Your task to perform on an android device: add a contact in the contacts app Image 0: 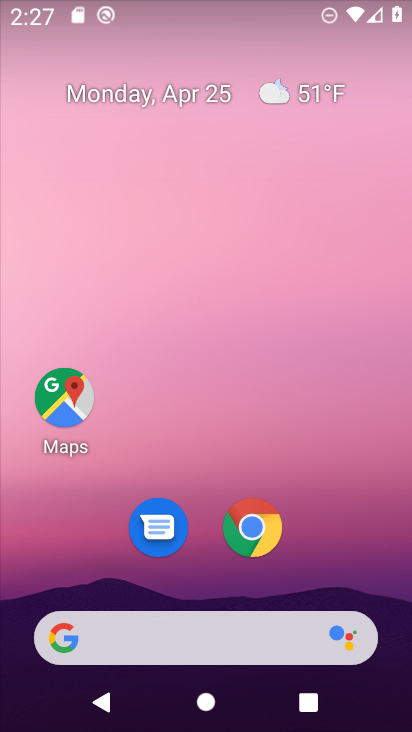
Step 0: drag from (272, 129) to (251, 30)
Your task to perform on an android device: add a contact in the contacts app Image 1: 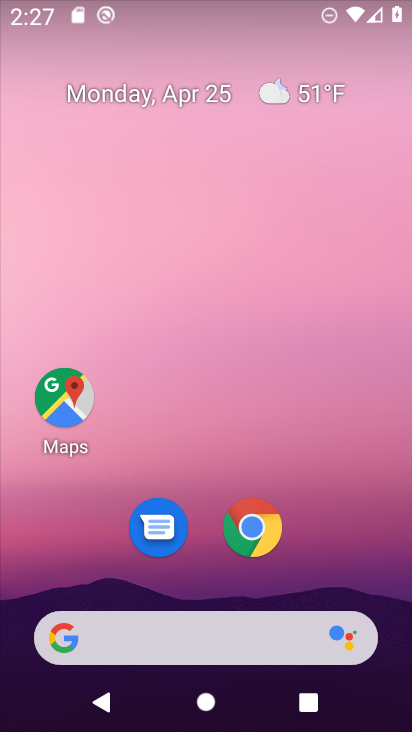
Step 1: drag from (288, 545) to (213, 45)
Your task to perform on an android device: add a contact in the contacts app Image 2: 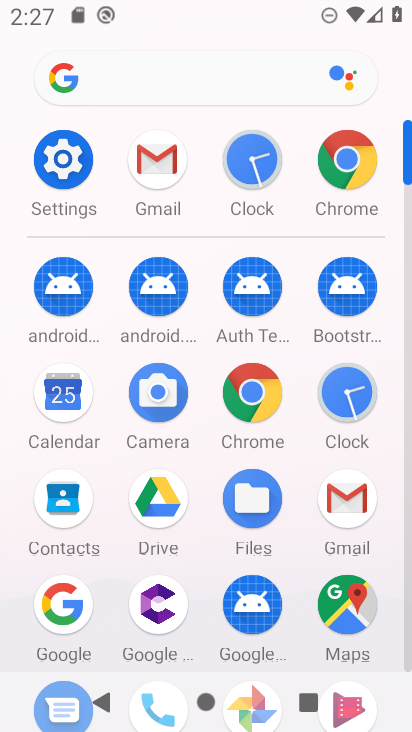
Step 2: drag from (6, 613) to (2, 278)
Your task to perform on an android device: add a contact in the contacts app Image 3: 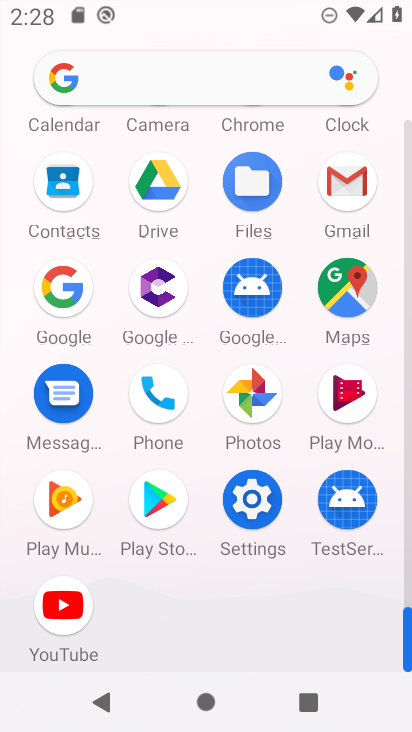
Step 3: click (63, 179)
Your task to perform on an android device: add a contact in the contacts app Image 4: 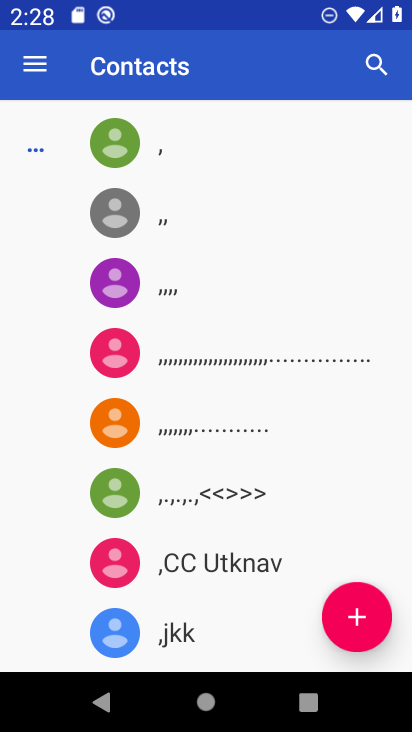
Step 4: click (347, 616)
Your task to perform on an android device: add a contact in the contacts app Image 5: 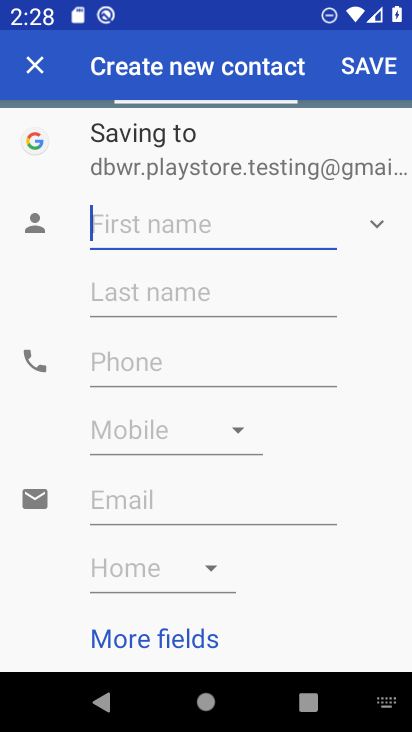
Step 5: type "Mjhhg"
Your task to perform on an android device: add a contact in the contacts app Image 6: 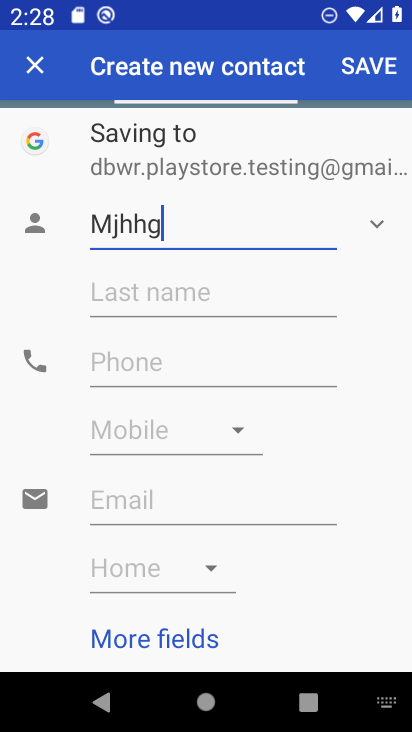
Step 6: type ""
Your task to perform on an android device: add a contact in the contacts app Image 7: 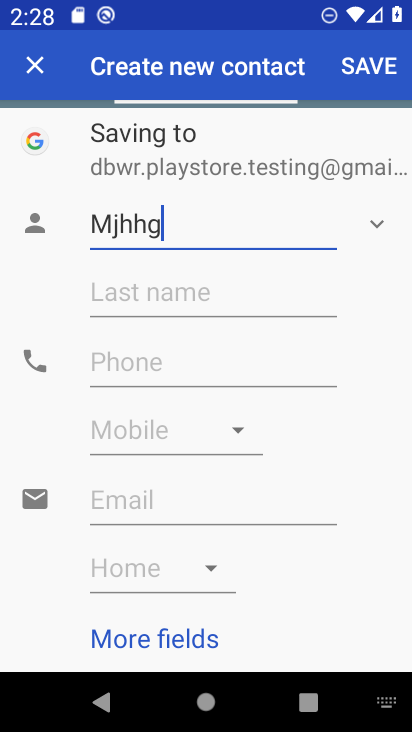
Step 7: click (209, 360)
Your task to perform on an android device: add a contact in the contacts app Image 8: 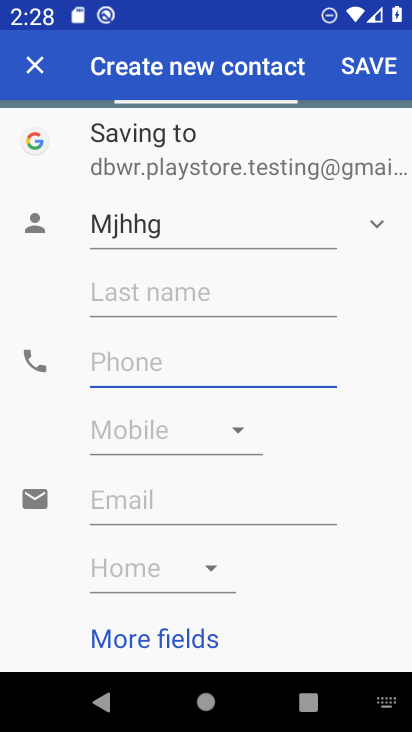
Step 8: type "3567898765"
Your task to perform on an android device: add a contact in the contacts app Image 9: 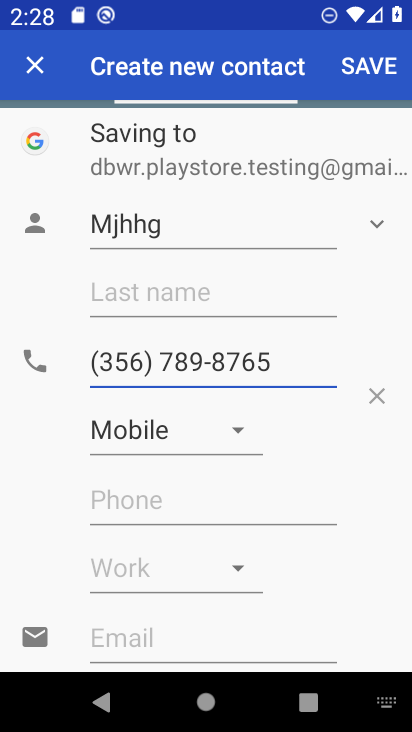
Step 9: click (363, 60)
Your task to perform on an android device: add a contact in the contacts app Image 10: 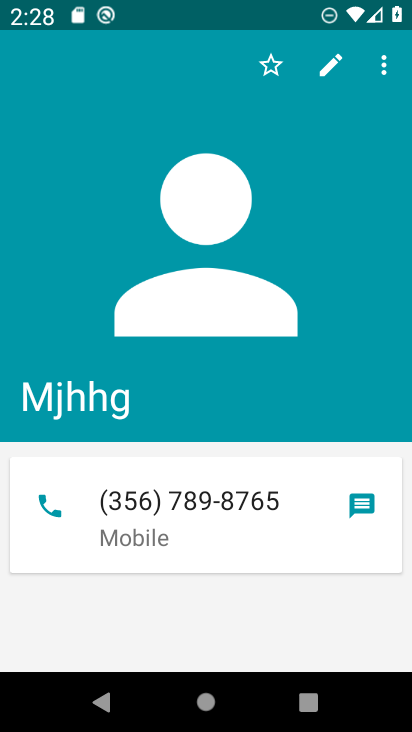
Step 10: task complete